Your task to perform on an android device: delete location history Image 0: 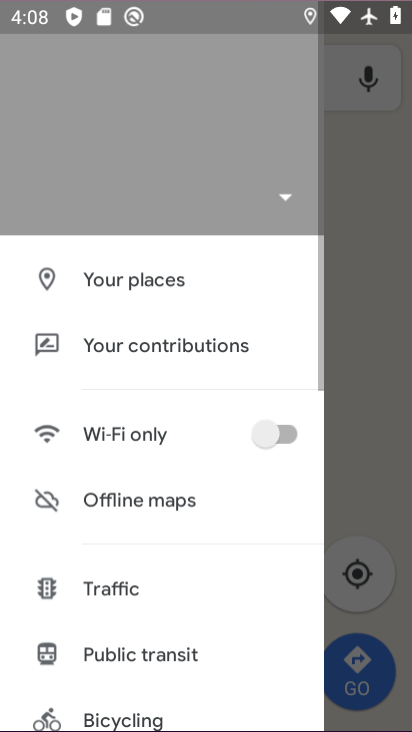
Step 0: drag from (230, 610) to (214, 187)
Your task to perform on an android device: delete location history Image 1: 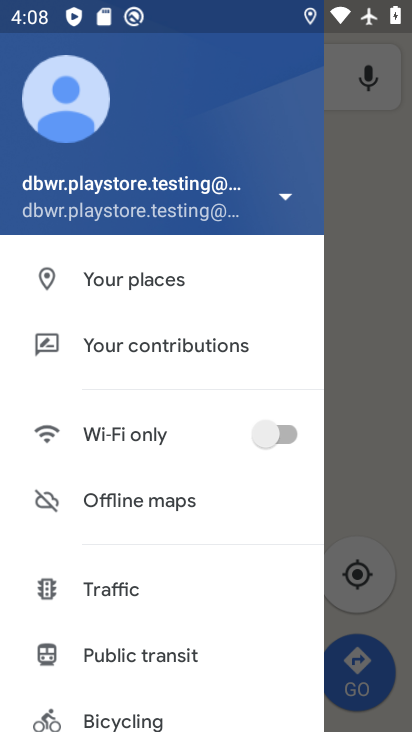
Step 1: press home button
Your task to perform on an android device: delete location history Image 2: 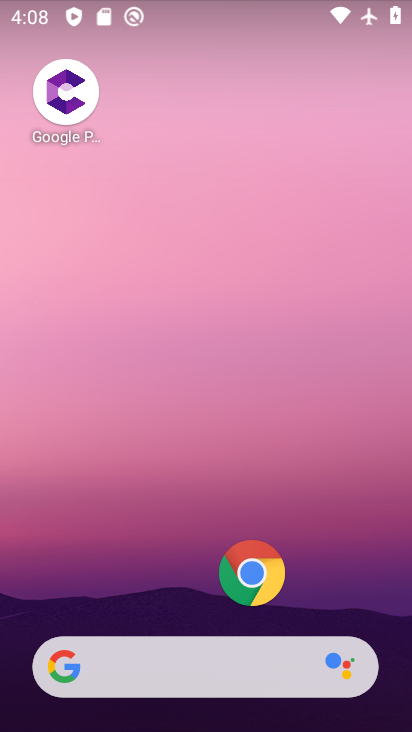
Step 2: drag from (199, 414) to (211, 1)
Your task to perform on an android device: delete location history Image 3: 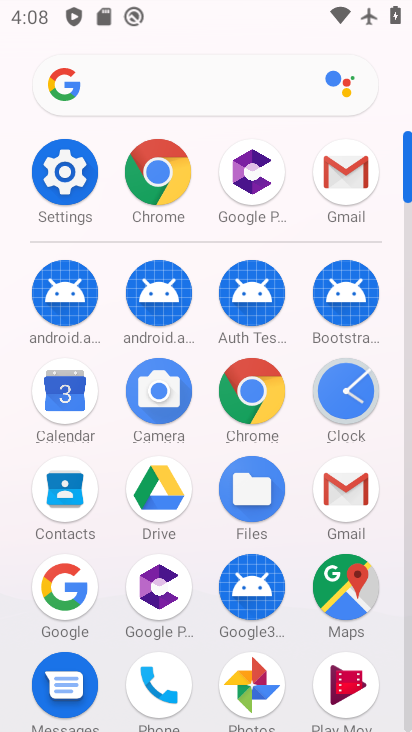
Step 3: click (47, 189)
Your task to perform on an android device: delete location history Image 4: 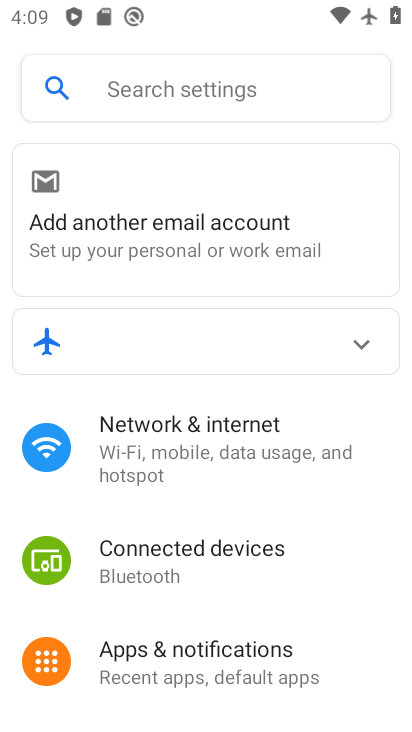
Step 4: drag from (177, 545) to (190, 44)
Your task to perform on an android device: delete location history Image 5: 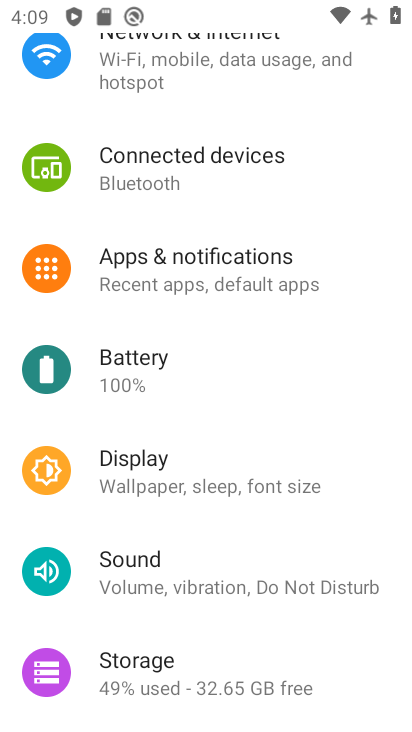
Step 5: drag from (186, 375) to (186, 127)
Your task to perform on an android device: delete location history Image 6: 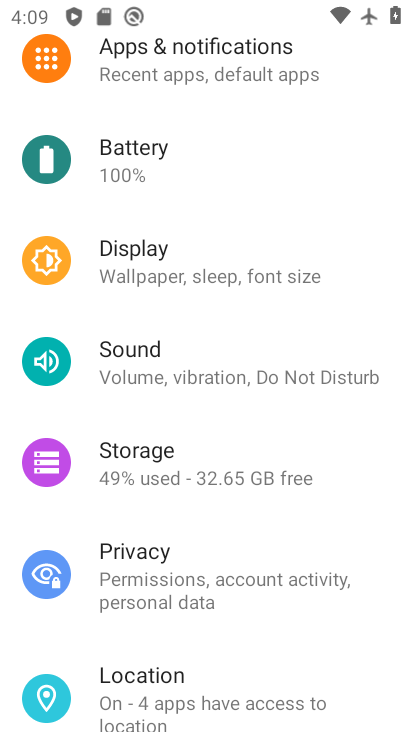
Step 6: click (166, 686)
Your task to perform on an android device: delete location history Image 7: 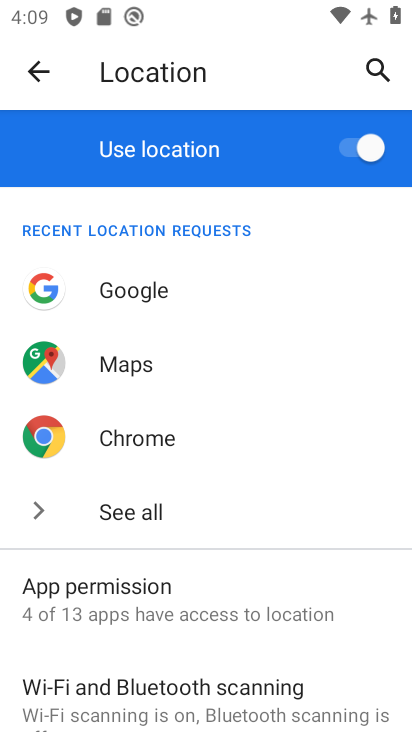
Step 7: drag from (165, 593) to (128, 271)
Your task to perform on an android device: delete location history Image 8: 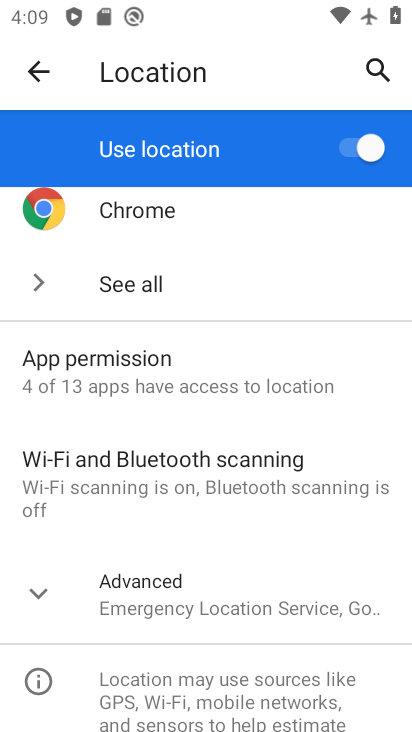
Step 8: click (203, 597)
Your task to perform on an android device: delete location history Image 9: 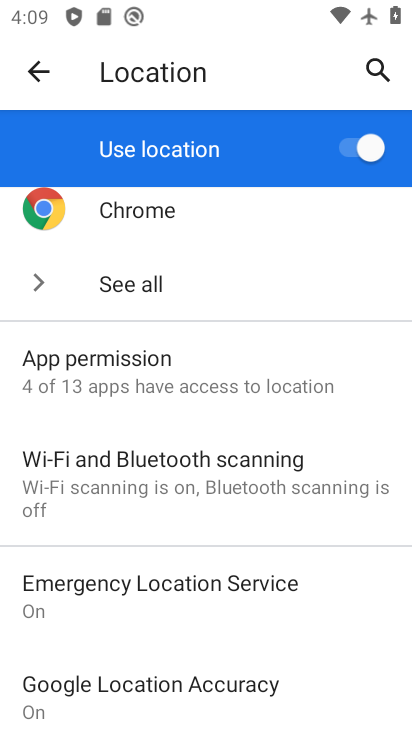
Step 9: drag from (210, 555) to (179, 243)
Your task to perform on an android device: delete location history Image 10: 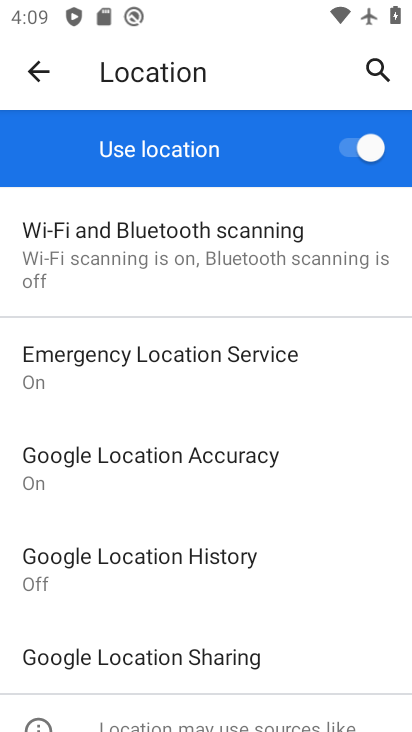
Step 10: click (234, 570)
Your task to perform on an android device: delete location history Image 11: 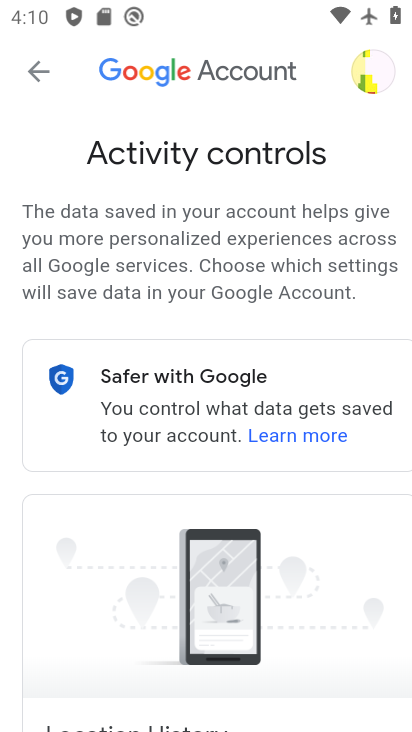
Step 11: drag from (274, 602) to (265, 132)
Your task to perform on an android device: delete location history Image 12: 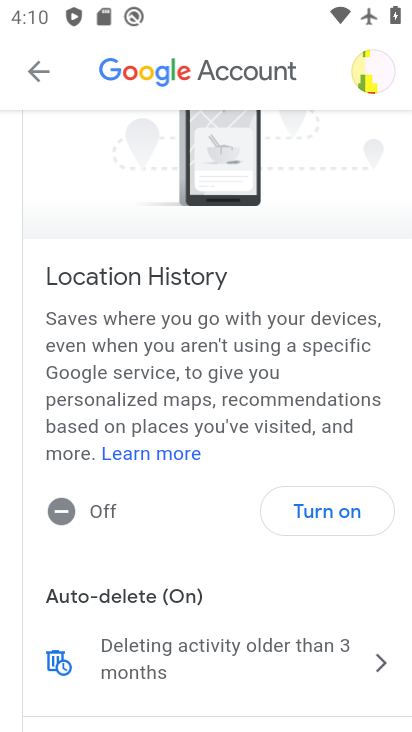
Step 12: drag from (234, 565) to (221, 181)
Your task to perform on an android device: delete location history Image 13: 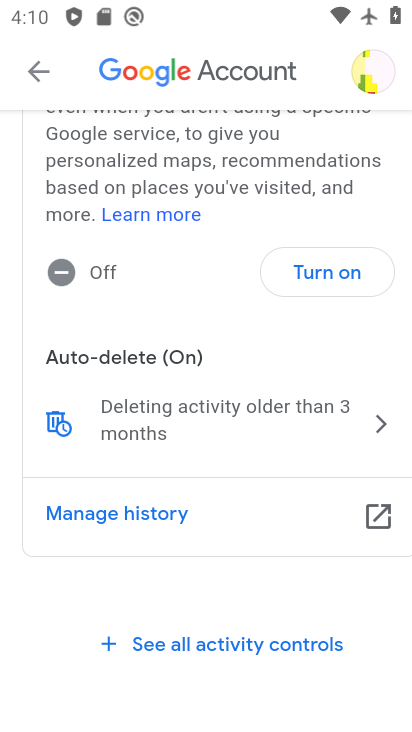
Step 13: click (292, 436)
Your task to perform on an android device: delete location history Image 14: 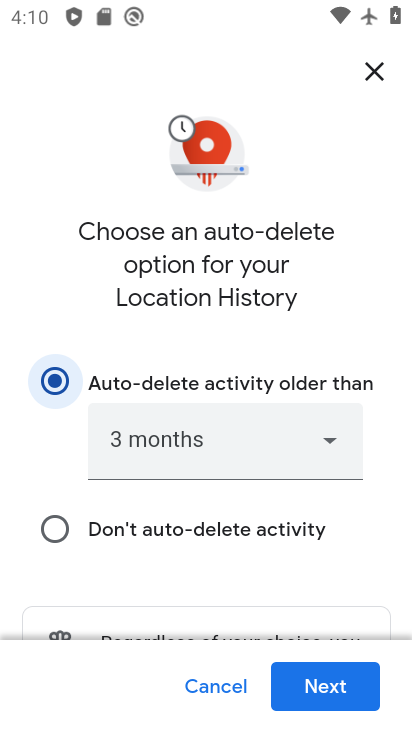
Step 14: drag from (265, 573) to (71, 3)
Your task to perform on an android device: delete location history Image 15: 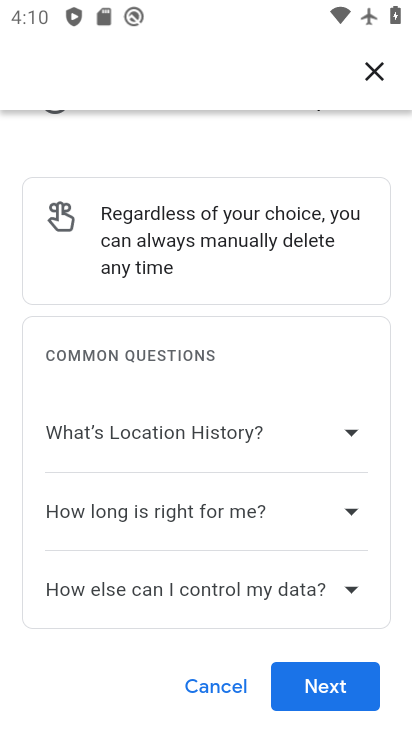
Step 15: drag from (170, 455) to (238, 39)
Your task to perform on an android device: delete location history Image 16: 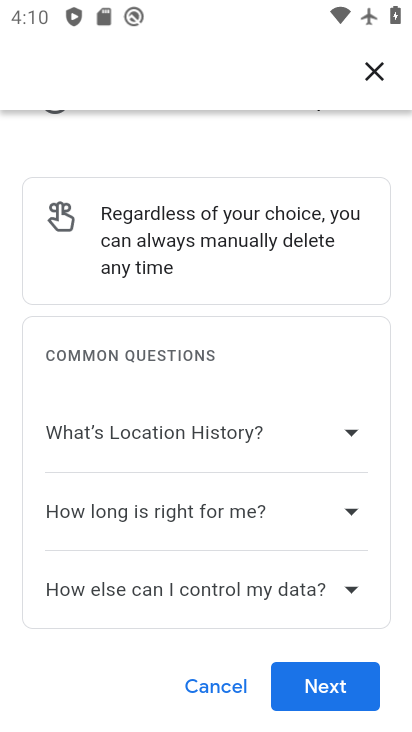
Step 16: click (333, 678)
Your task to perform on an android device: delete location history Image 17: 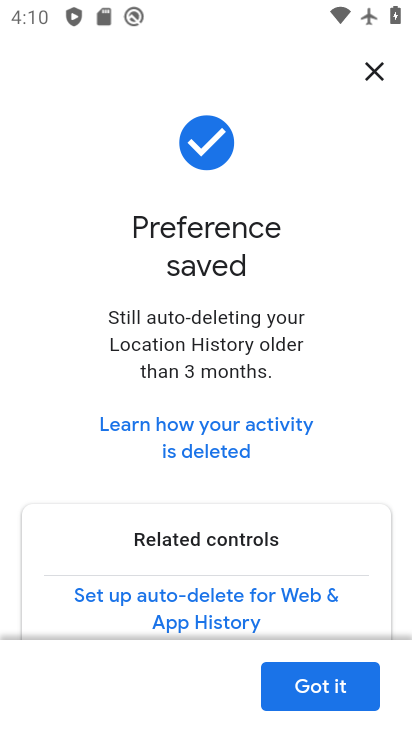
Step 17: click (349, 692)
Your task to perform on an android device: delete location history Image 18: 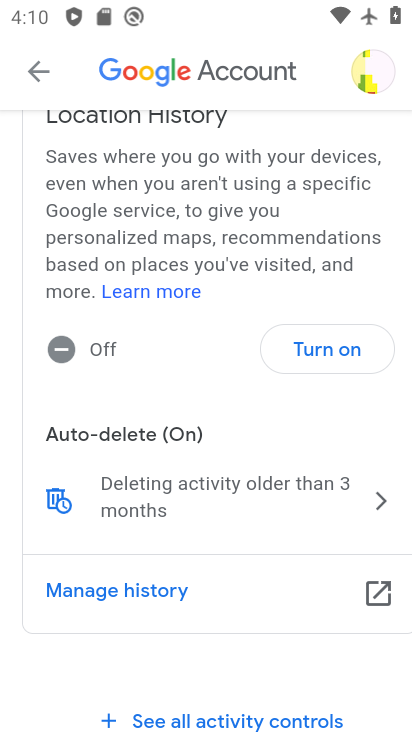
Step 18: task complete